Your task to perform on an android device: Do I have any events today? Image 0: 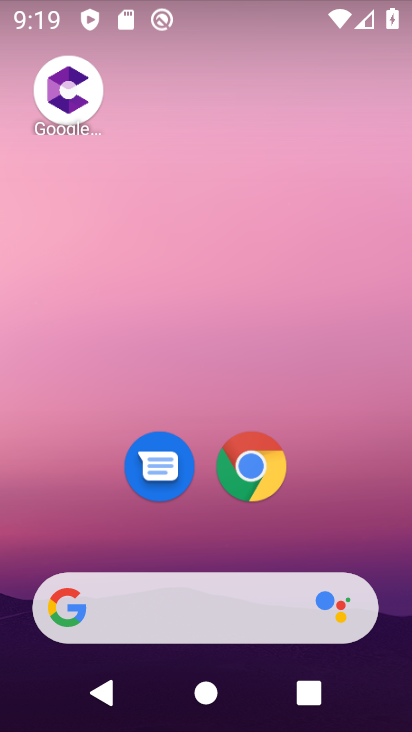
Step 0: drag from (123, 566) to (141, 140)
Your task to perform on an android device: Do I have any events today? Image 1: 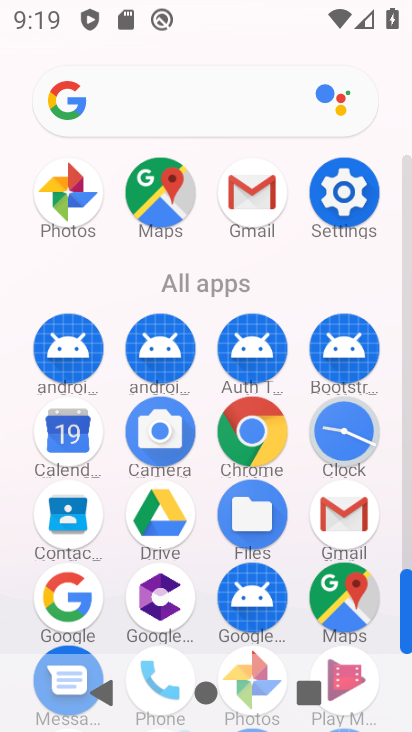
Step 1: click (72, 424)
Your task to perform on an android device: Do I have any events today? Image 2: 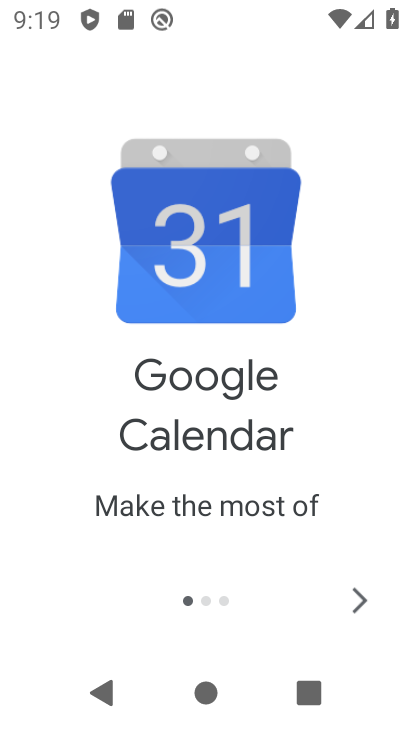
Step 2: click (372, 602)
Your task to perform on an android device: Do I have any events today? Image 3: 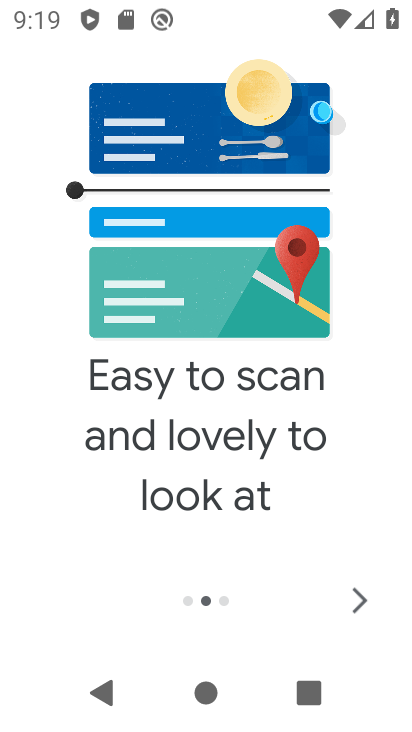
Step 3: click (372, 602)
Your task to perform on an android device: Do I have any events today? Image 4: 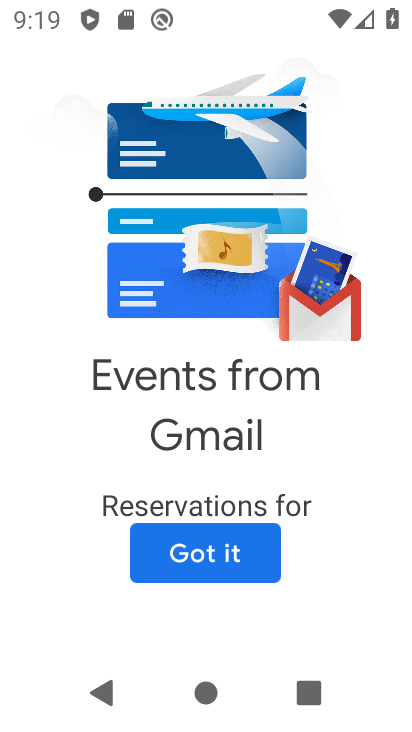
Step 4: click (372, 602)
Your task to perform on an android device: Do I have any events today? Image 5: 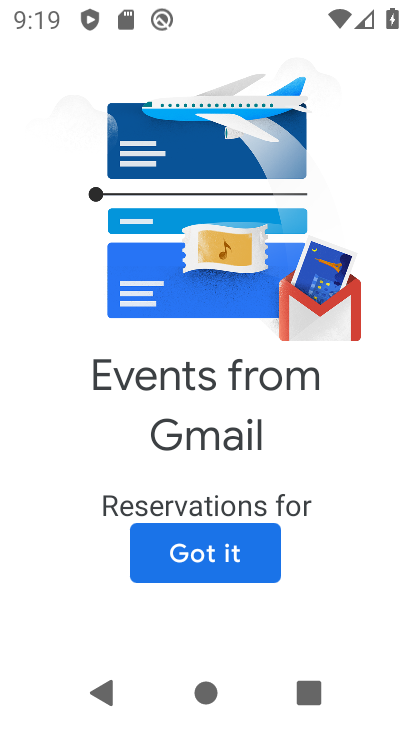
Step 5: click (227, 543)
Your task to perform on an android device: Do I have any events today? Image 6: 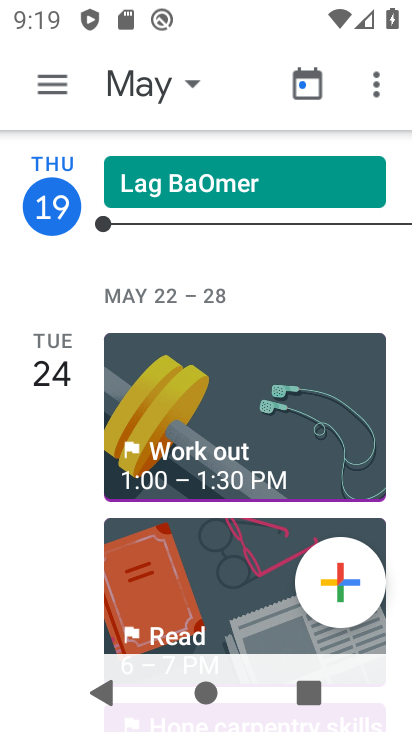
Step 6: click (193, 76)
Your task to perform on an android device: Do I have any events today? Image 7: 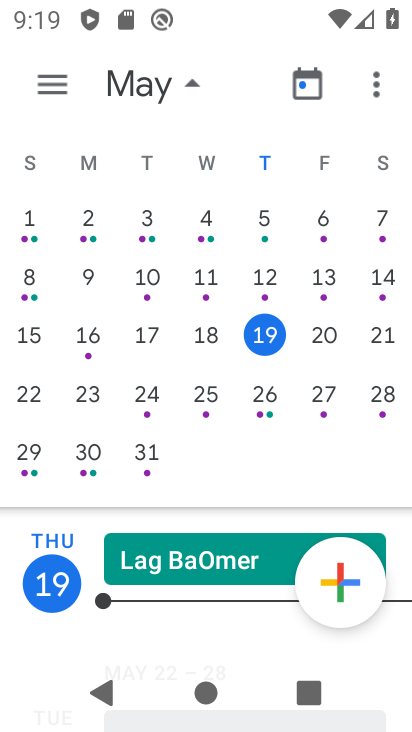
Step 7: click (315, 327)
Your task to perform on an android device: Do I have any events today? Image 8: 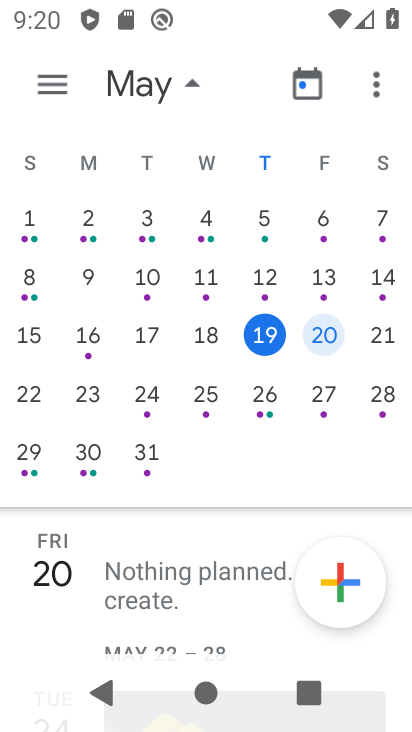
Step 8: task complete